Your task to perform on an android device: Open ESPN.com Image 0: 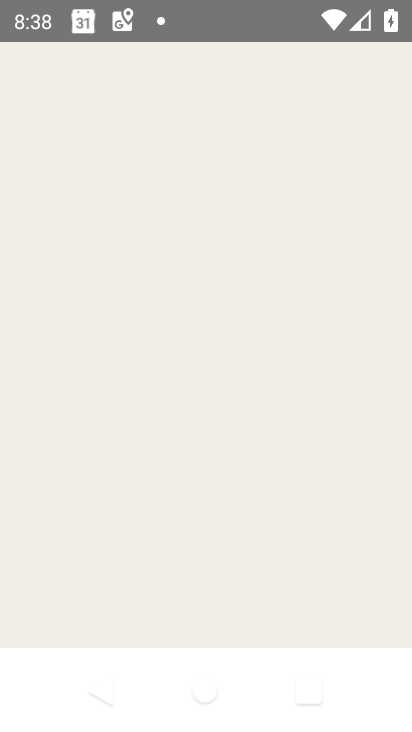
Step 0: press home button
Your task to perform on an android device: Open ESPN.com Image 1: 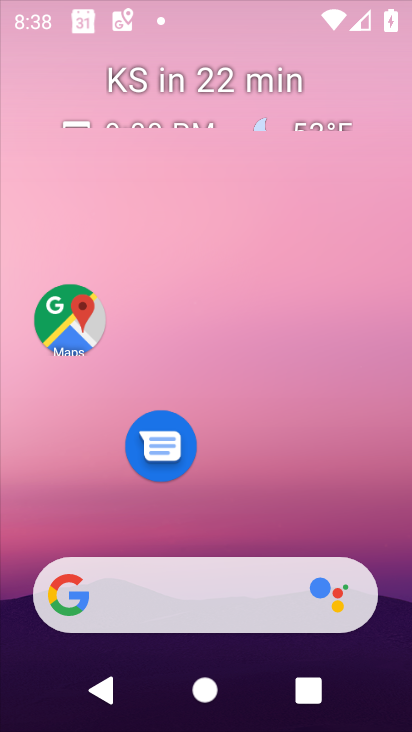
Step 1: drag from (205, 535) to (278, 9)
Your task to perform on an android device: Open ESPN.com Image 2: 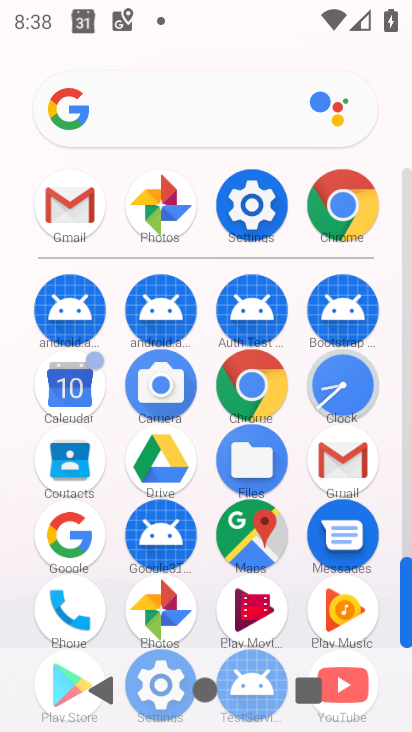
Step 2: click (270, 385)
Your task to perform on an android device: Open ESPN.com Image 3: 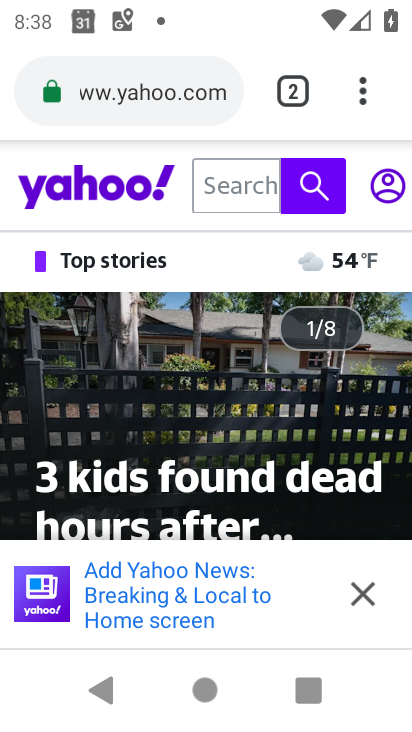
Step 3: click (289, 94)
Your task to perform on an android device: Open ESPN.com Image 4: 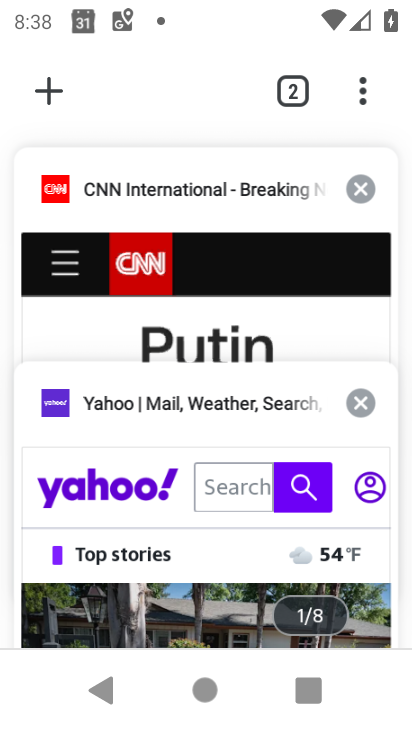
Step 4: click (45, 83)
Your task to perform on an android device: Open ESPN.com Image 5: 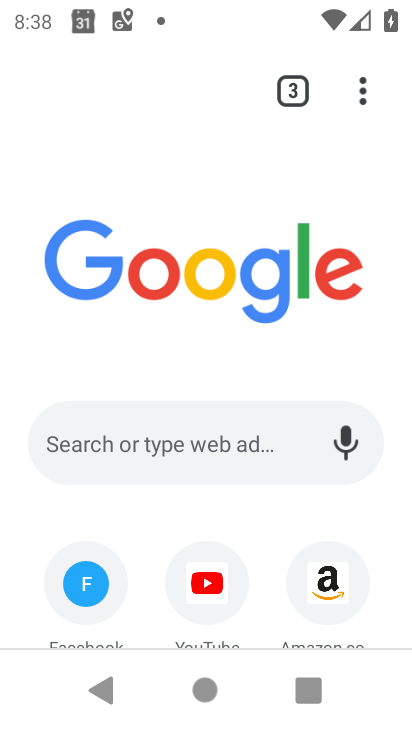
Step 5: drag from (169, 529) to (126, 293)
Your task to perform on an android device: Open ESPN.com Image 6: 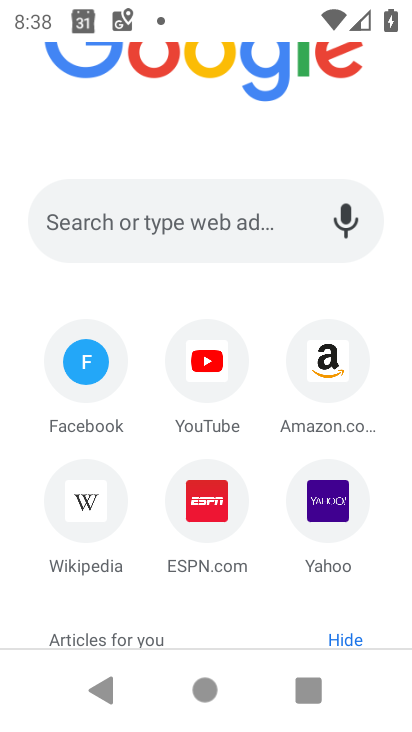
Step 6: click (197, 495)
Your task to perform on an android device: Open ESPN.com Image 7: 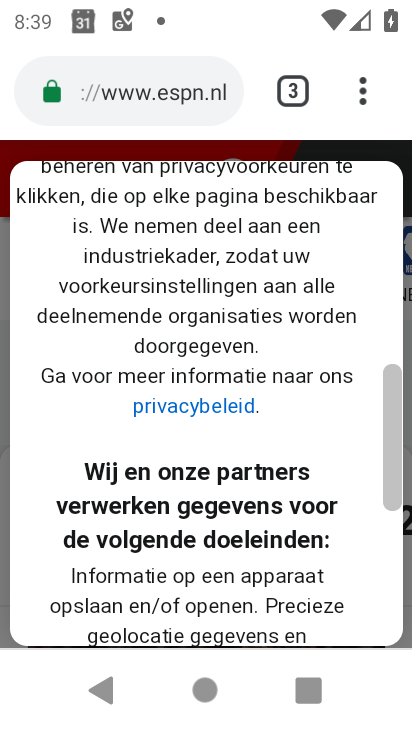
Step 7: press back button
Your task to perform on an android device: Open ESPN.com Image 8: 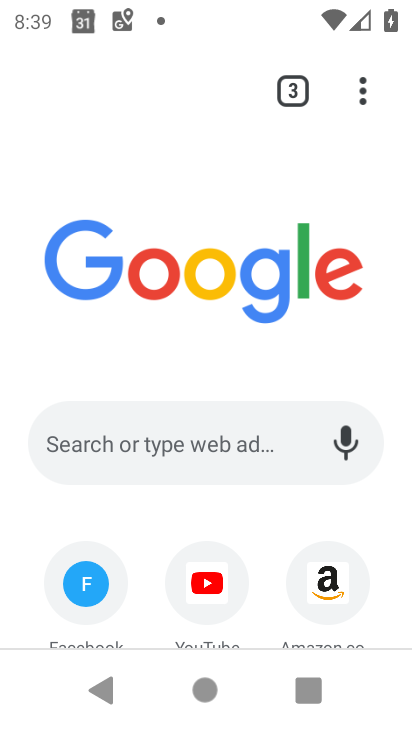
Step 8: drag from (248, 507) to (172, 48)
Your task to perform on an android device: Open ESPN.com Image 9: 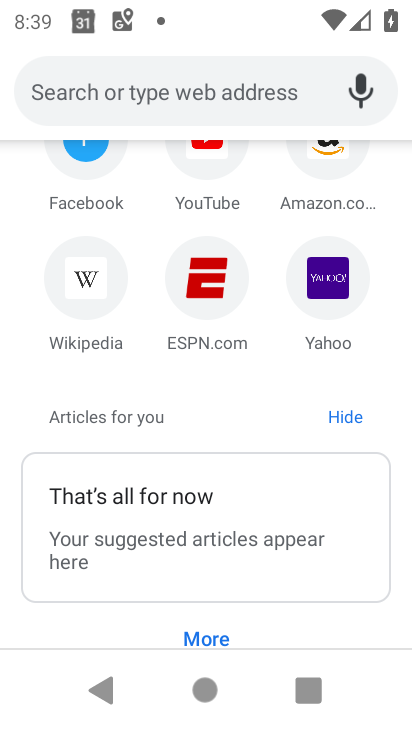
Step 9: click (202, 283)
Your task to perform on an android device: Open ESPN.com Image 10: 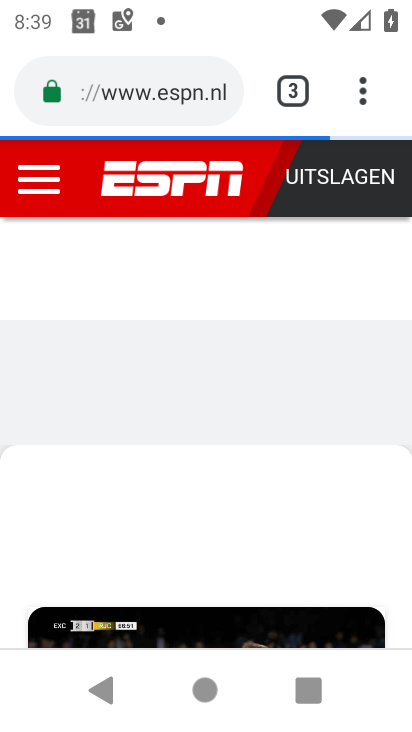
Step 10: task complete